Your task to perform on an android device: Go to battery settings Image 0: 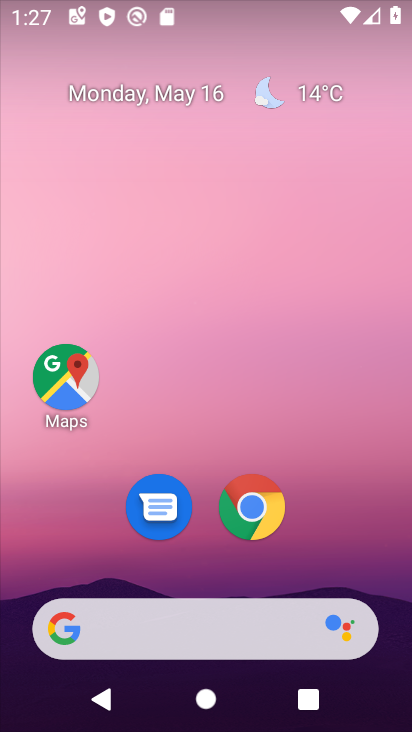
Step 0: drag from (214, 576) to (299, 205)
Your task to perform on an android device: Go to battery settings Image 1: 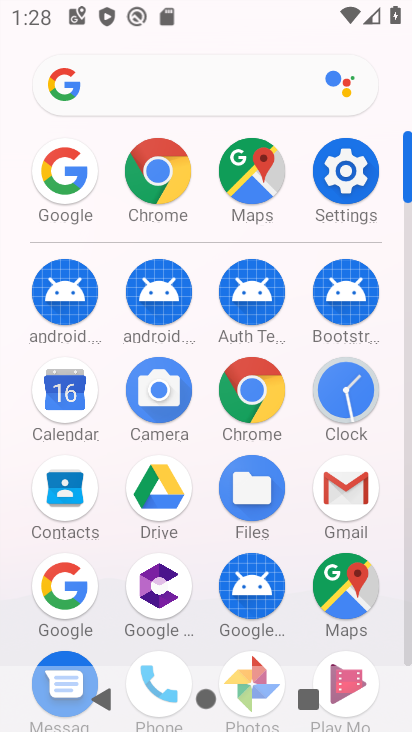
Step 1: click (358, 170)
Your task to perform on an android device: Go to battery settings Image 2: 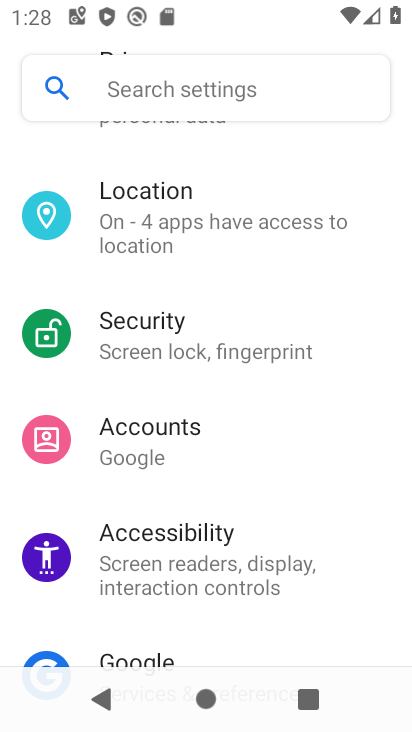
Step 2: drag from (240, 566) to (291, 238)
Your task to perform on an android device: Go to battery settings Image 3: 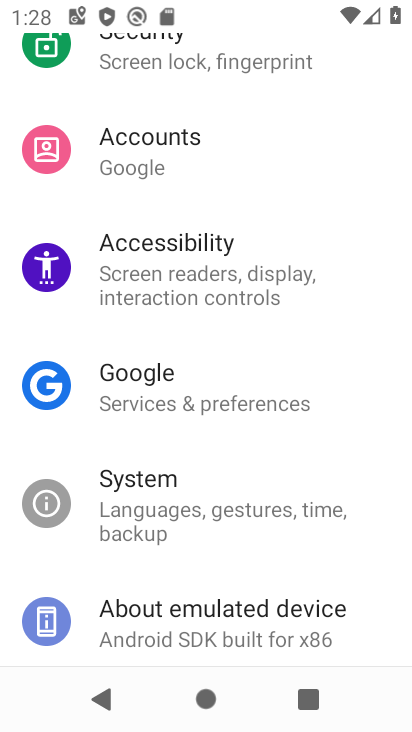
Step 3: drag from (319, 231) to (207, 676)
Your task to perform on an android device: Go to battery settings Image 4: 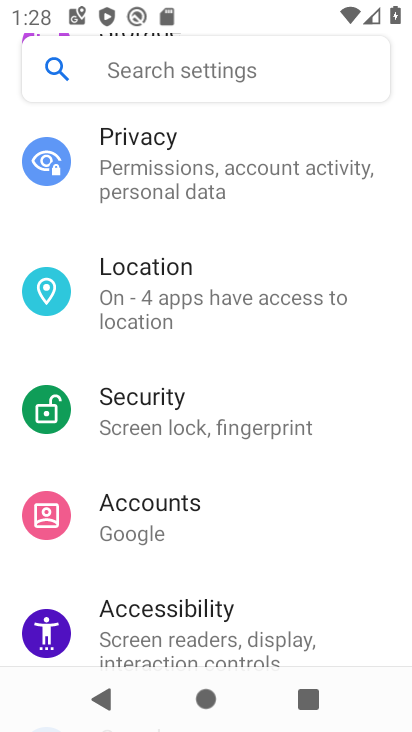
Step 4: drag from (295, 304) to (192, 687)
Your task to perform on an android device: Go to battery settings Image 5: 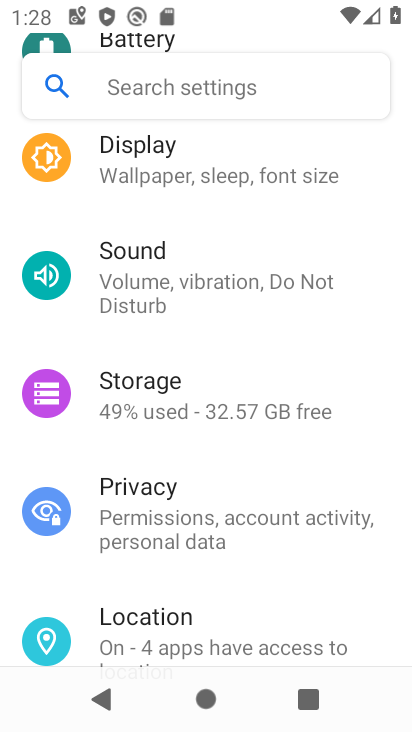
Step 5: drag from (258, 259) to (214, 551)
Your task to perform on an android device: Go to battery settings Image 6: 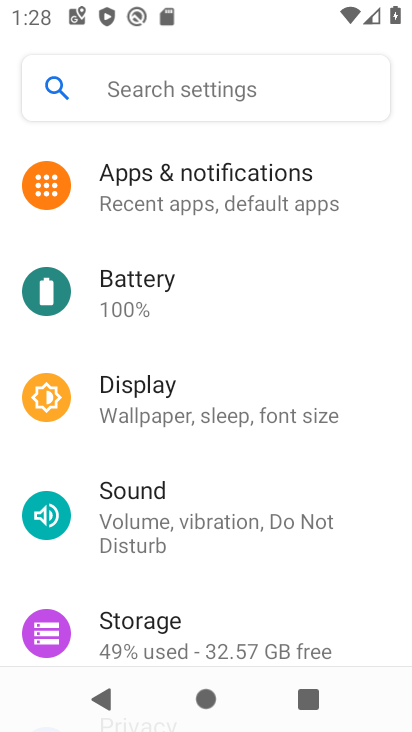
Step 6: click (194, 315)
Your task to perform on an android device: Go to battery settings Image 7: 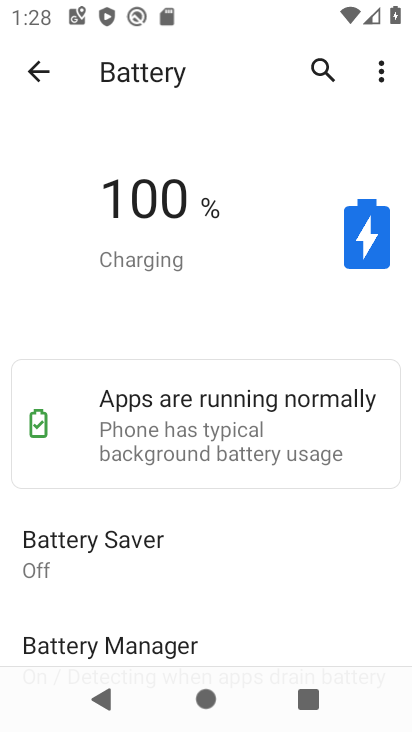
Step 7: task complete